Your task to perform on an android device: Open maps Image 0: 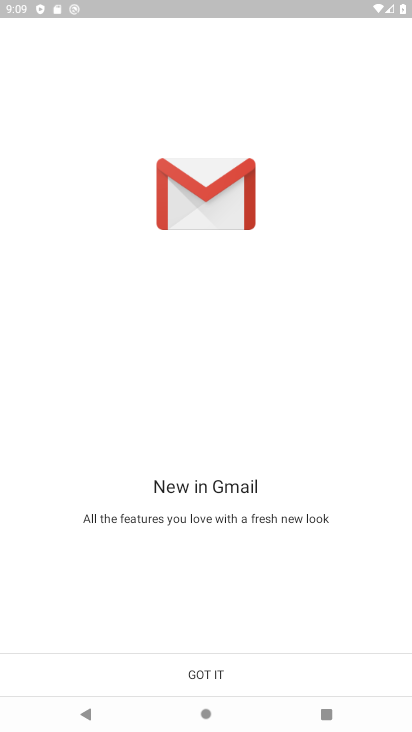
Step 0: press home button
Your task to perform on an android device: Open maps Image 1: 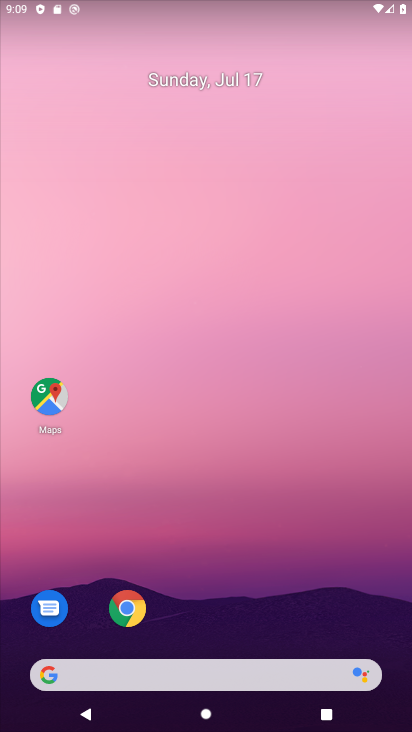
Step 1: click (46, 391)
Your task to perform on an android device: Open maps Image 2: 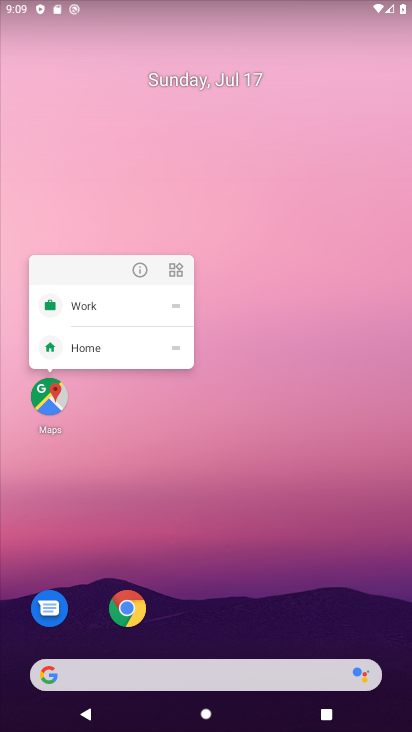
Step 2: click (47, 392)
Your task to perform on an android device: Open maps Image 3: 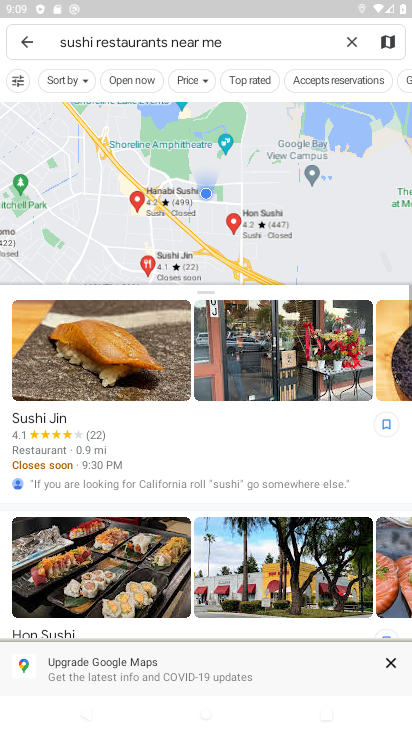
Step 3: task complete